Your task to perform on an android device: toggle location history Image 0: 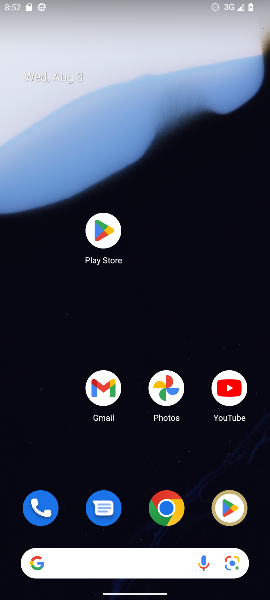
Step 0: drag from (121, 547) to (136, 33)
Your task to perform on an android device: toggle location history Image 1: 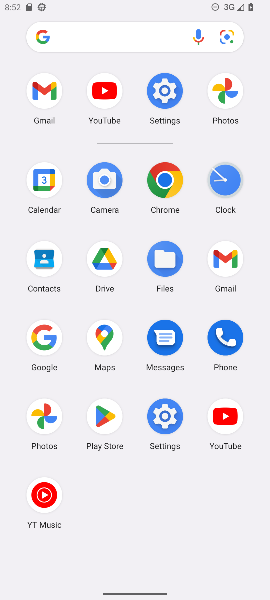
Step 1: click (171, 408)
Your task to perform on an android device: toggle location history Image 2: 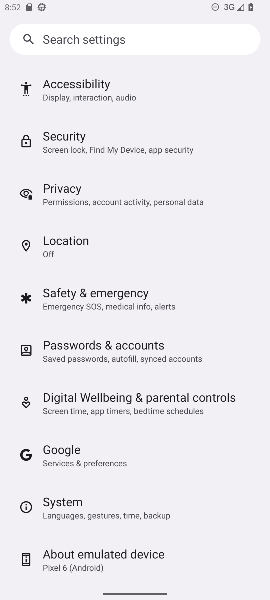
Step 2: click (76, 251)
Your task to perform on an android device: toggle location history Image 3: 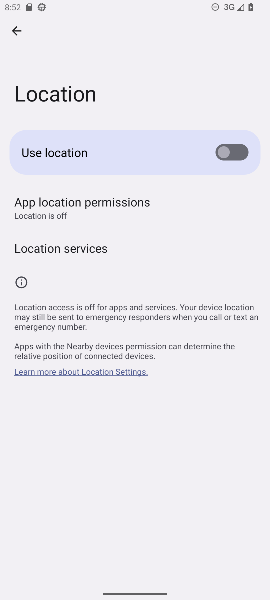
Step 3: click (83, 252)
Your task to perform on an android device: toggle location history Image 4: 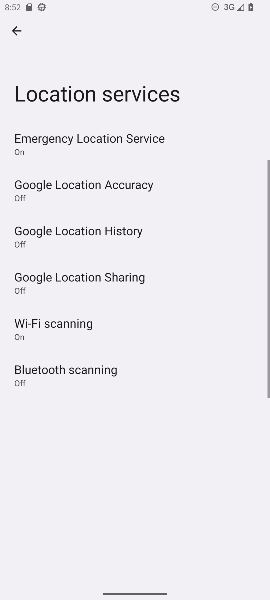
Step 4: click (92, 245)
Your task to perform on an android device: toggle location history Image 5: 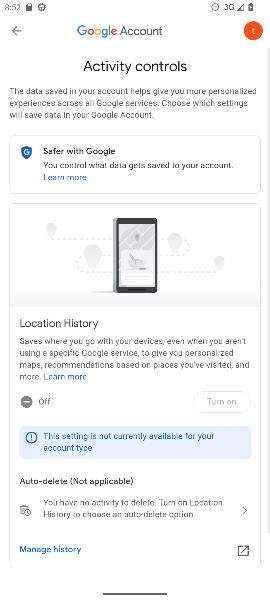
Step 5: task complete